Your task to perform on an android device: turn on wifi Image 0: 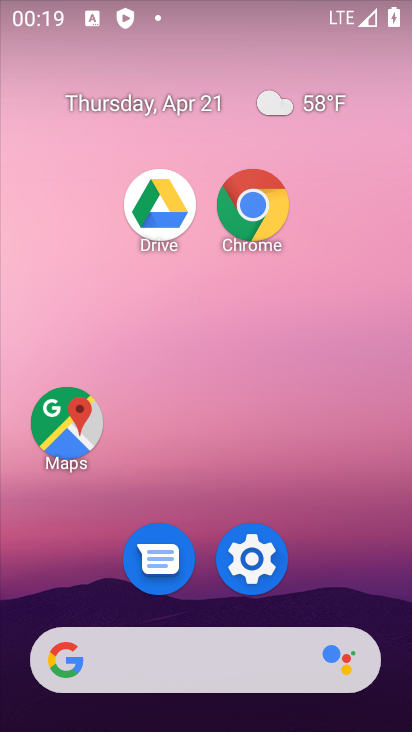
Step 0: drag from (333, 596) to (321, 153)
Your task to perform on an android device: turn on wifi Image 1: 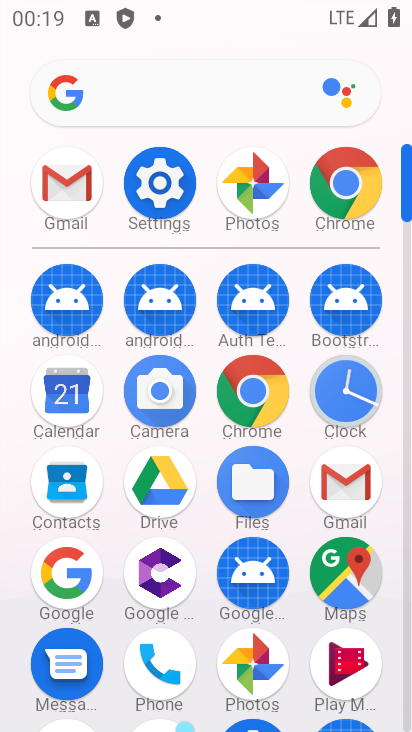
Step 1: click (169, 170)
Your task to perform on an android device: turn on wifi Image 2: 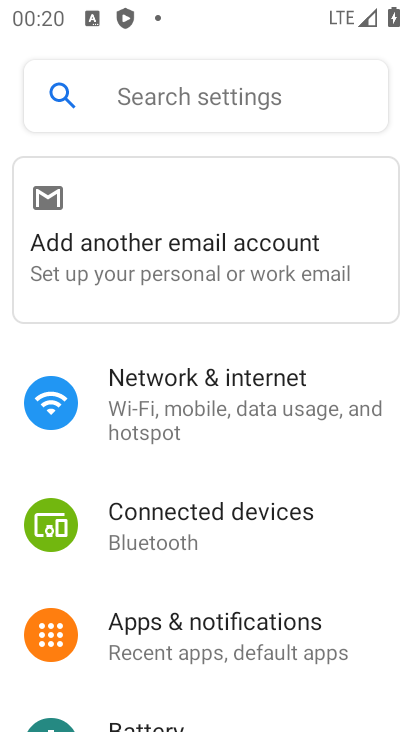
Step 2: click (229, 433)
Your task to perform on an android device: turn on wifi Image 3: 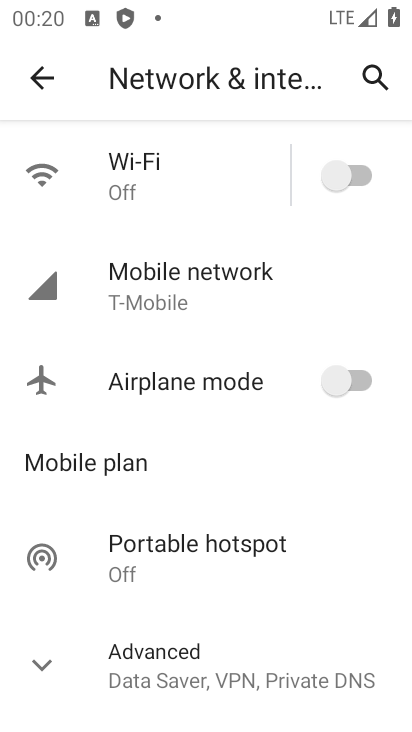
Step 3: click (362, 174)
Your task to perform on an android device: turn on wifi Image 4: 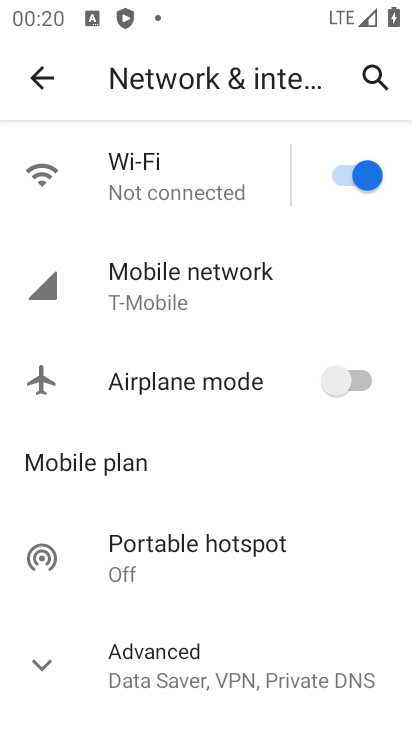
Step 4: task complete